Your task to perform on an android device: Open Yahoo.com Image 0: 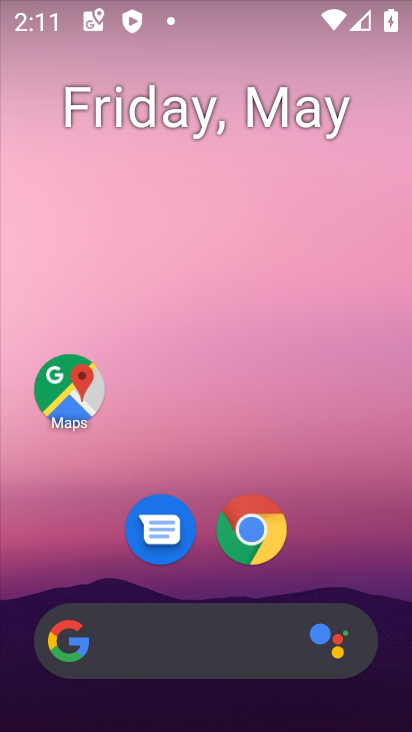
Step 0: click (265, 537)
Your task to perform on an android device: Open Yahoo.com Image 1: 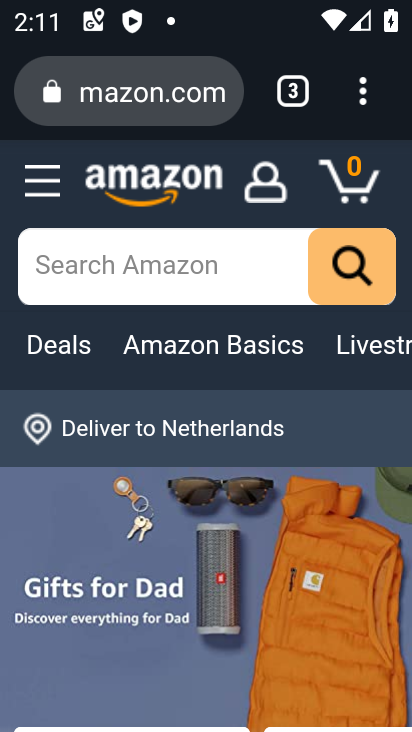
Step 1: click (165, 111)
Your task to perform on an android device: Open Yahoo.com Image 2: 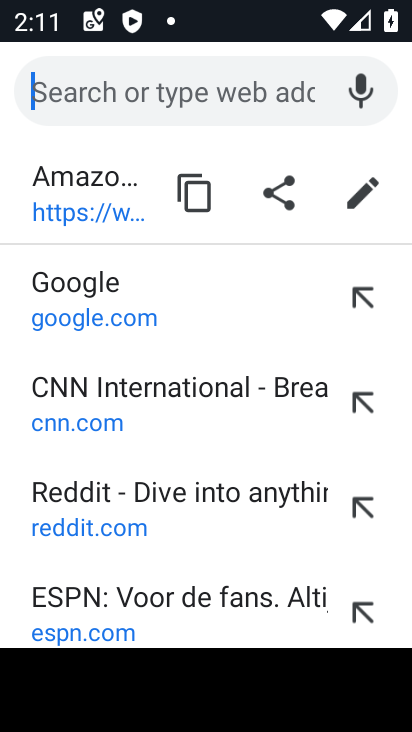
Step 2: type "yahoo.com"
Your task to perform on an android device: Open Yahoo.com Image 3: 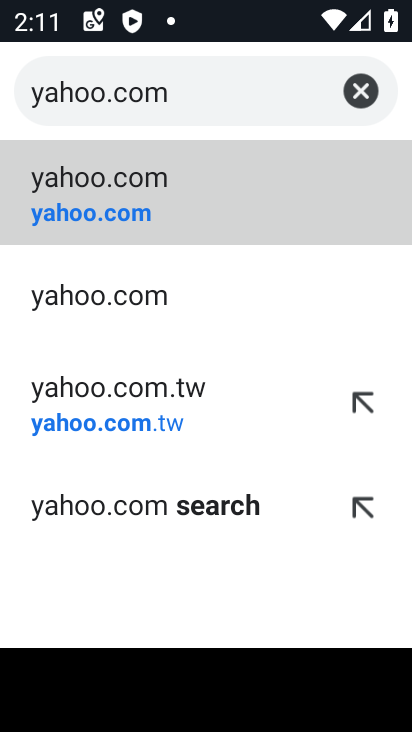
Step 3: click (135, 201)
Your task to perform on an android device: Open Yahoo.com Image 4: 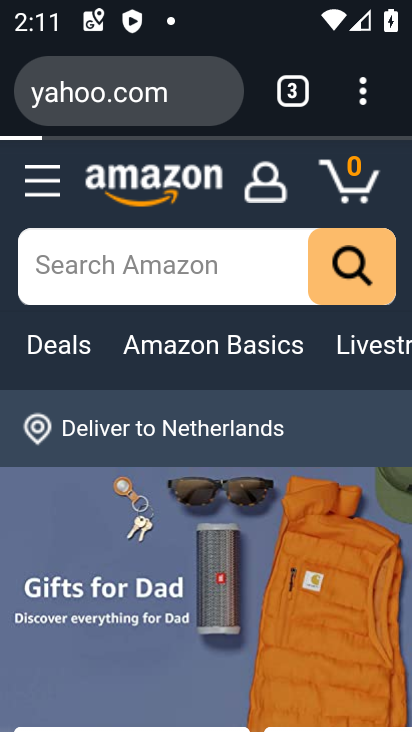
Step 4: task complete